Your task to perform on an android device: Open the map Image 0: 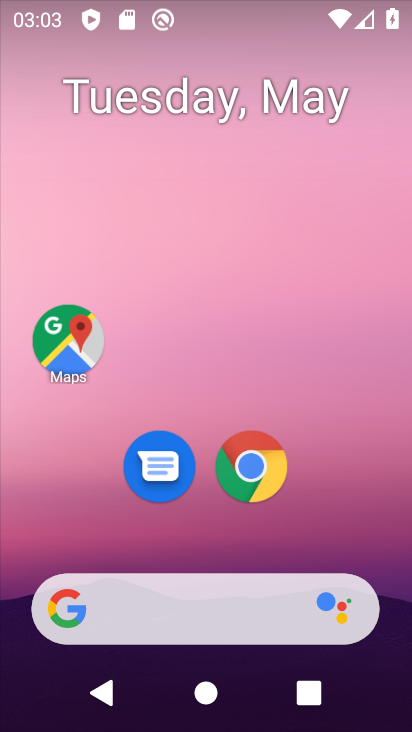
Step 0: click (64, 339)
Your task to perform on an android device: Open the map Image 1: 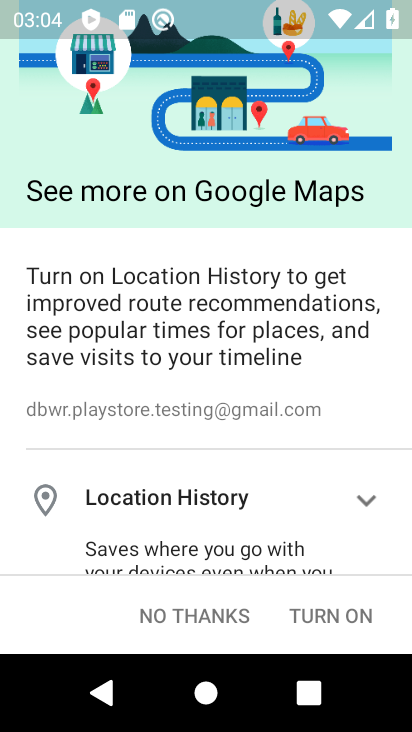
Step 1: click (161, 626)
Your task to perform on an android device: Open the map Image 2: 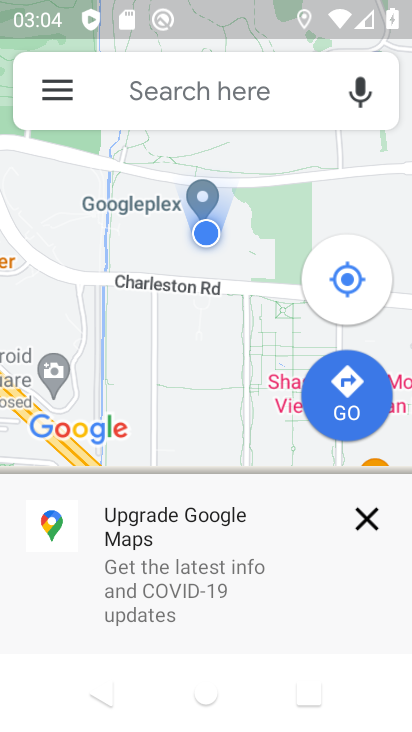
Step 2: task complete